Your task to perform on an android device: Go to ESPN.com Image 0: 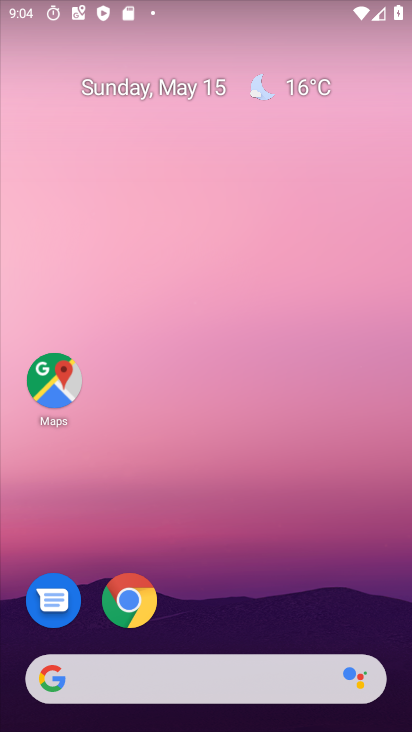
Step 0: drag from (245, 594) to (235, 134)
Your task to perform on an android device: Go to ESPN.com Image 1: 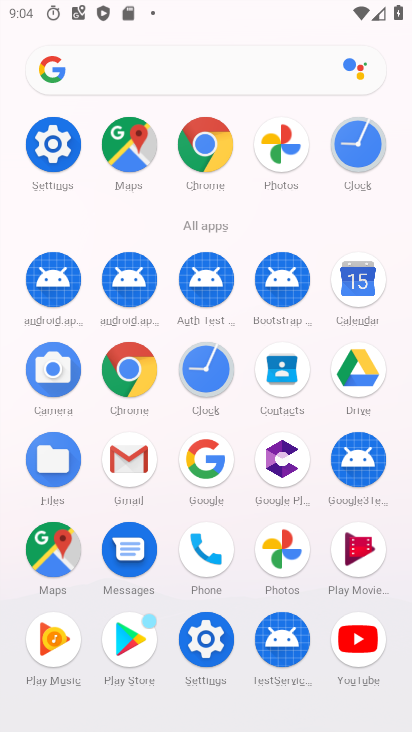
Step 1: click (209, 460)
Your task to perform on an android device: Go to ESPN.com Image 2: 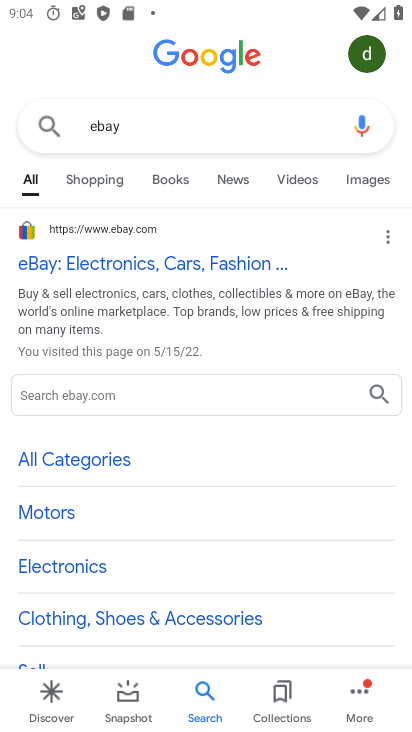
Step 2: click (196, 122)
Your task to perform on an android device: Go to ESPN.com Image 3: 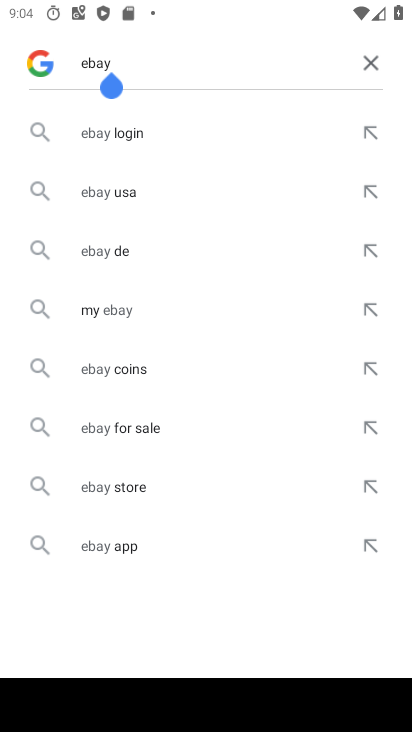
Step 3: click (374, 62)
Your task to perform on an android device: Go to ESPN.com Image 4: 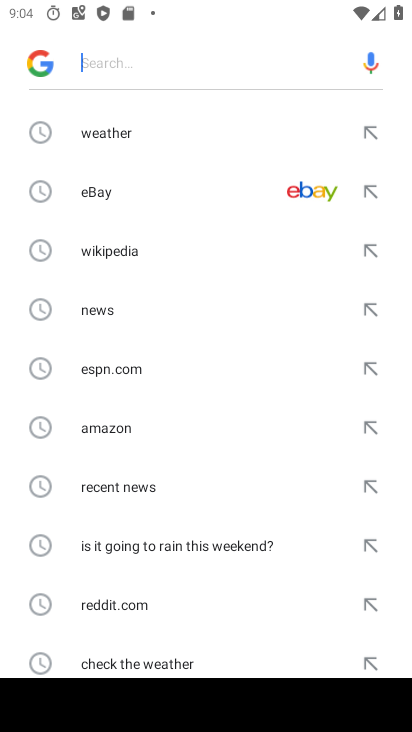
Step 4: click (112, 358)
Your task to perform on an android device: Go to ESPN.com Image 5: 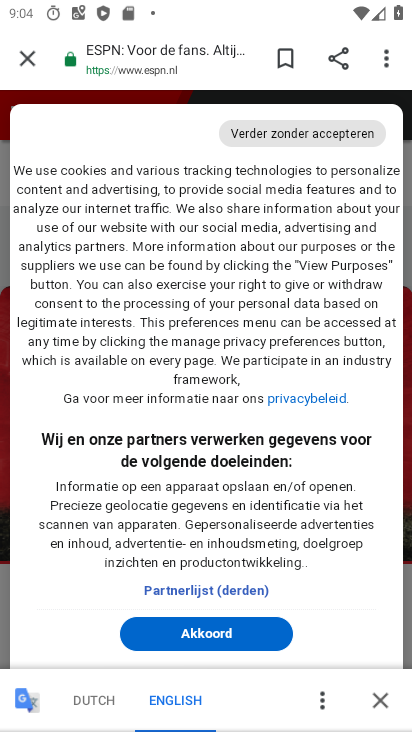
Step 5: task complete